Your task to perform on an android device: check the backup settings in the google photos Image 0: 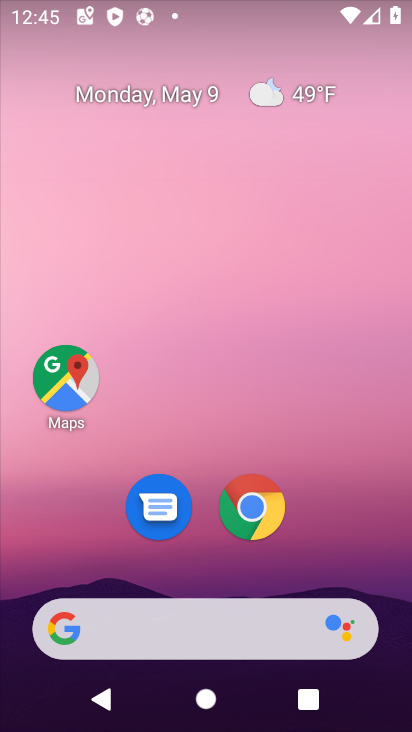
Step 0: drag from (181, 594) to (212, 144)
Your task to perform on an android device: check the backup settings in the google photos Image 1: 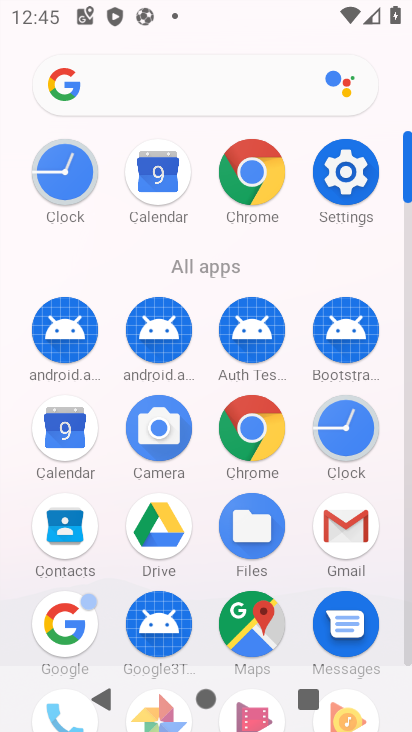
Step 1: drag from (205, 650) to (247, 232)
Your task to perform on an android device: check the backup settings in the google photos Image 2: 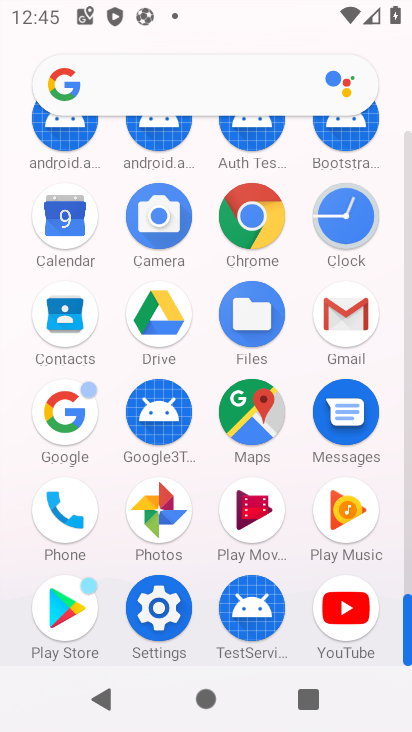
Step 2: click (160, 504)
Your task to perform on an android device: check the backup settings in the google photos Image 3: 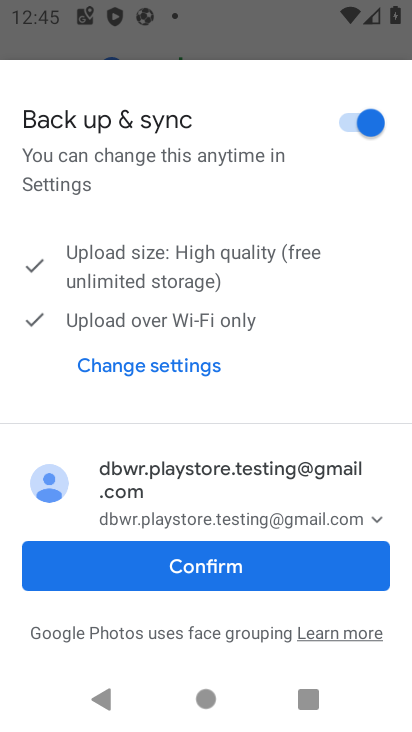
Step 3: click (197, 564)
Your task to perform on an android device: check the backup settings in the google photos Image 4: 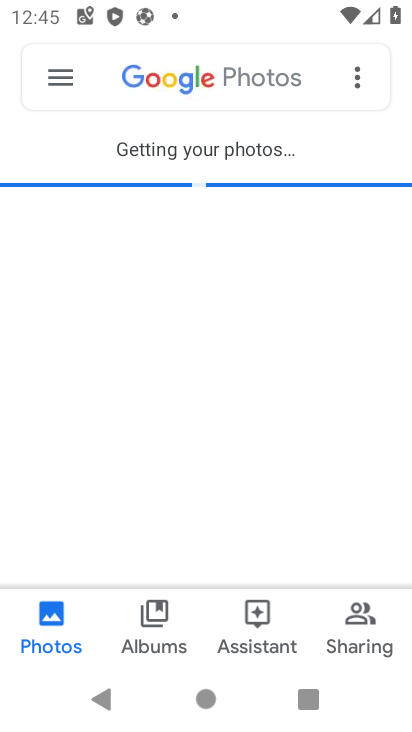
Step 4: click (41, 74)
Your task to perform on an android device: check the backup settings in the google photos Image 5: 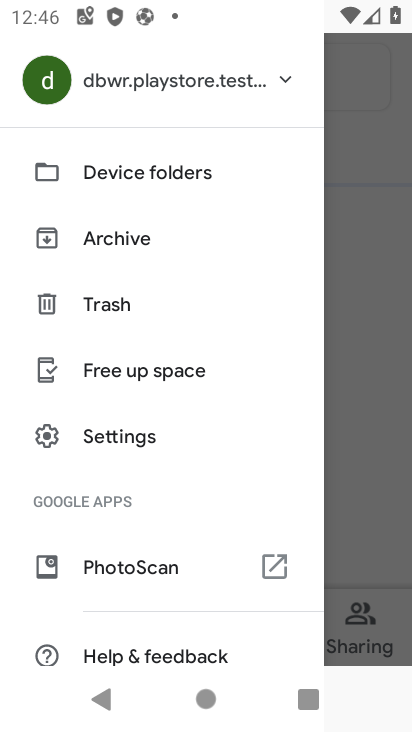
Step 5: click (123, 439)
Your task to perform on an android device: check the backup settings in the google photos Image 6: 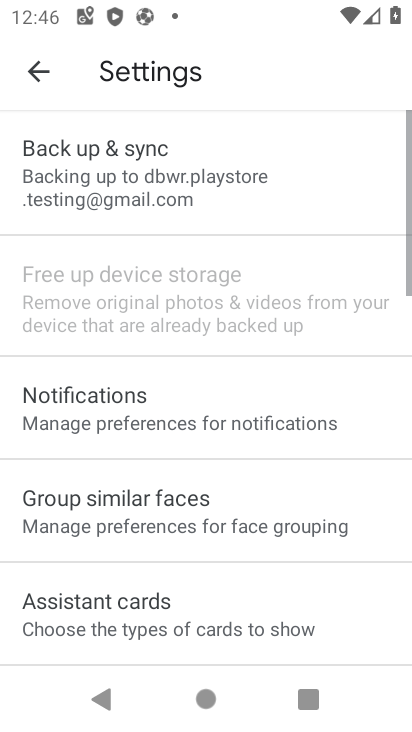
Step 6: click (81, 157)
Your task to perform on an android device: check the backup settings in the google photos Image 7: 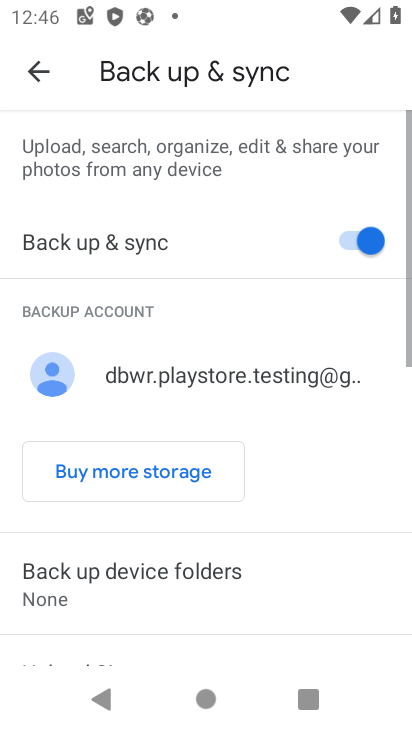
Step 7: task complete